Your task to perform on an android device: Add "asus rog" to the cart on target.com Image 0: 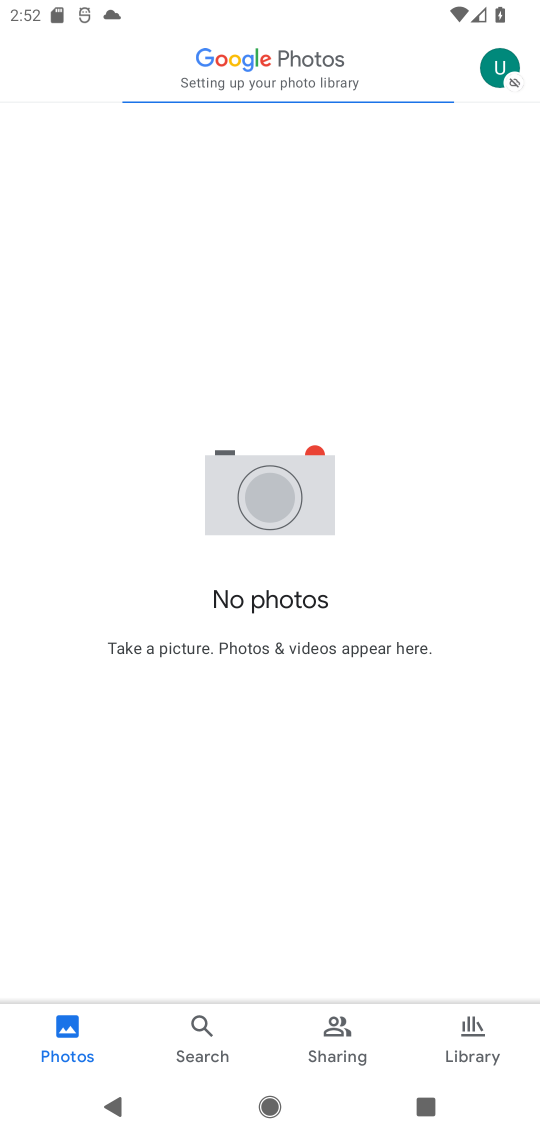
Step 0: press home button
Your task to perform on an android device: Add "asus rog" to the cart on target.com Image 1: 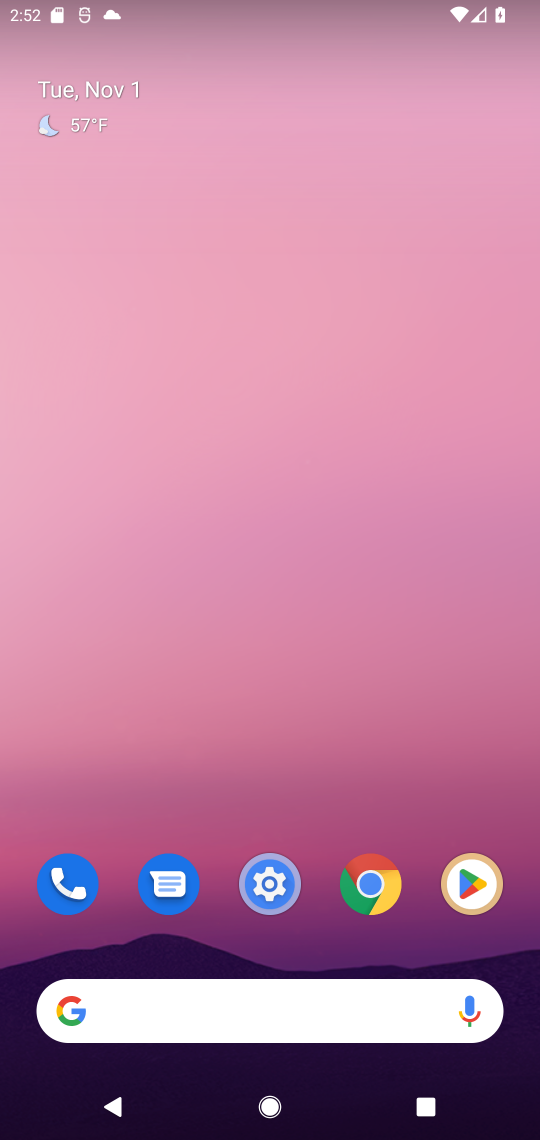
Step 1: click (115, 1008)
Your task to perform on an android device: Add "asus rog" to the cart on target.com Image 2: 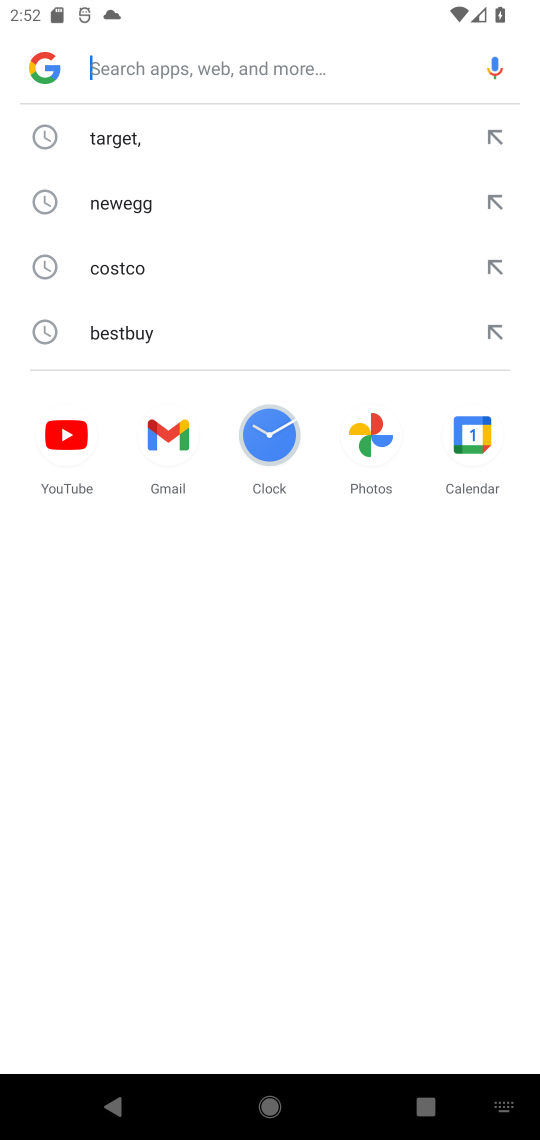
Step 2: type "target.com"
Your task to perform on an android device: Add "asus rog" to the cart on target.com Image 3: 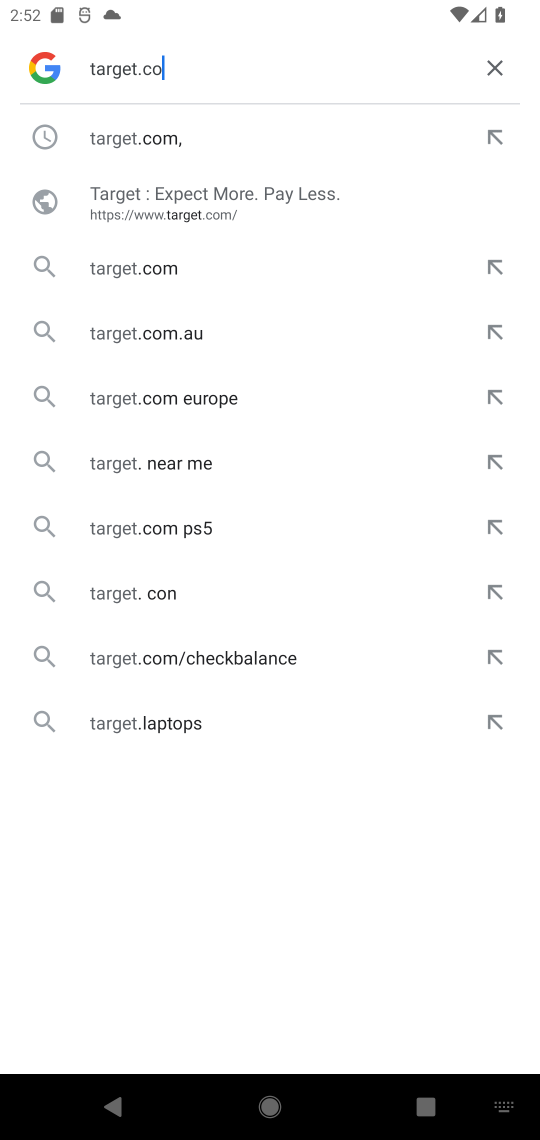
Step 3: press enter
Your task to perform on an android device: Add "asus rog" to the cart on target.com Image 4: 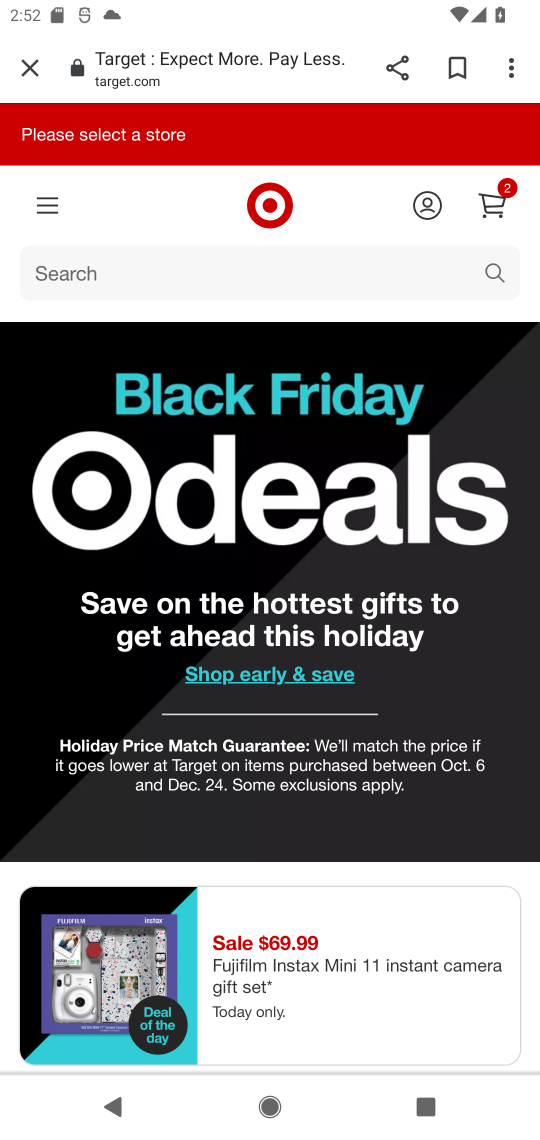
Step 4: click (53, 267)
Your task to perform on an android device: Add "asus rog" to the cart on target.com Image 5: 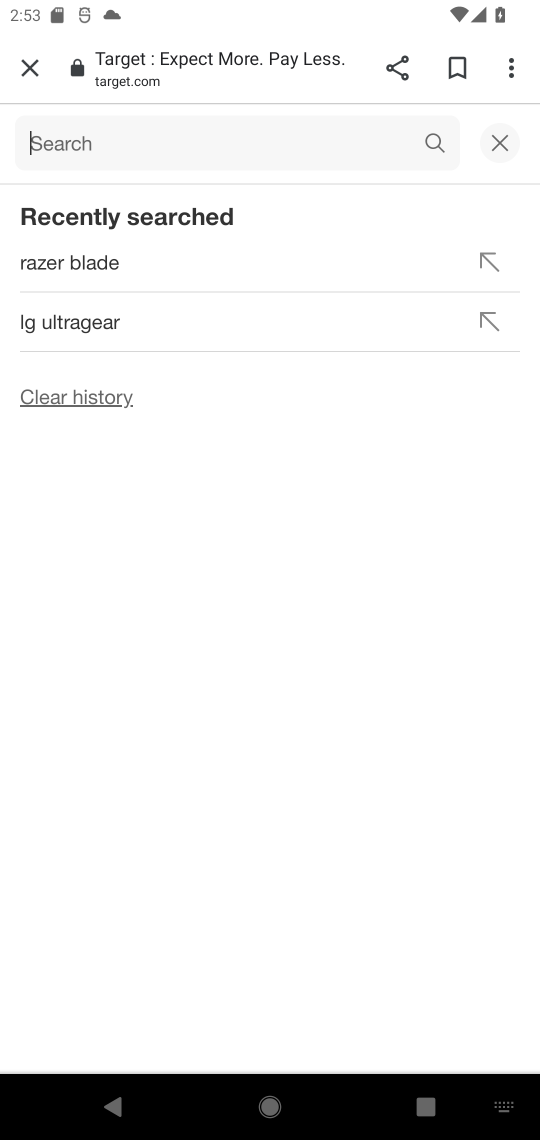
Step 5: type "asus rog"
Your task to perform on an android device: Add "asus rog" to the cart on target.com Image 6: 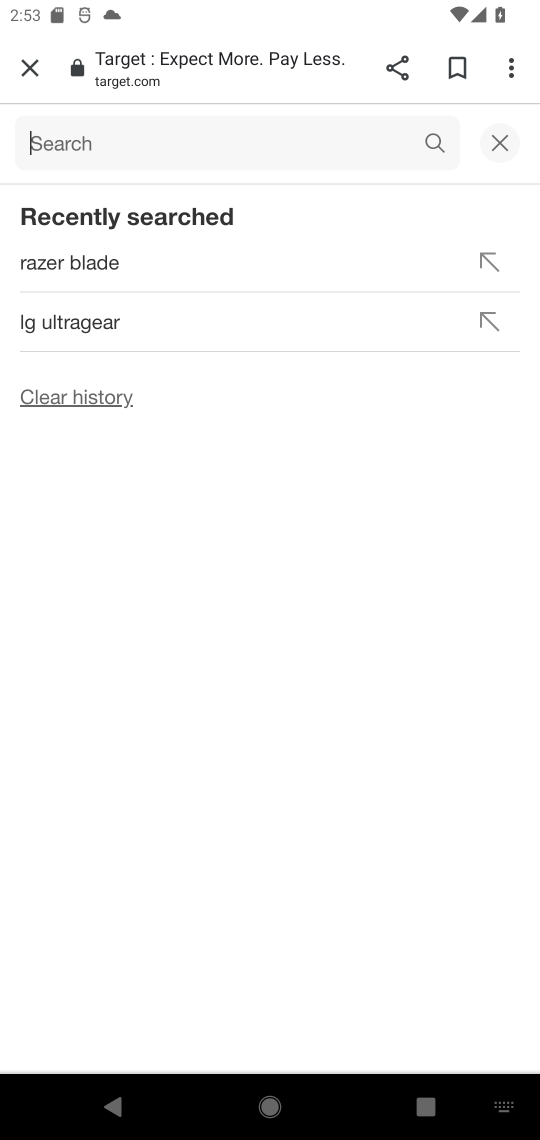
Step 6: press enter
Your task to perform on an android device: Add "asus rog" to the cart on target.com Image 7: 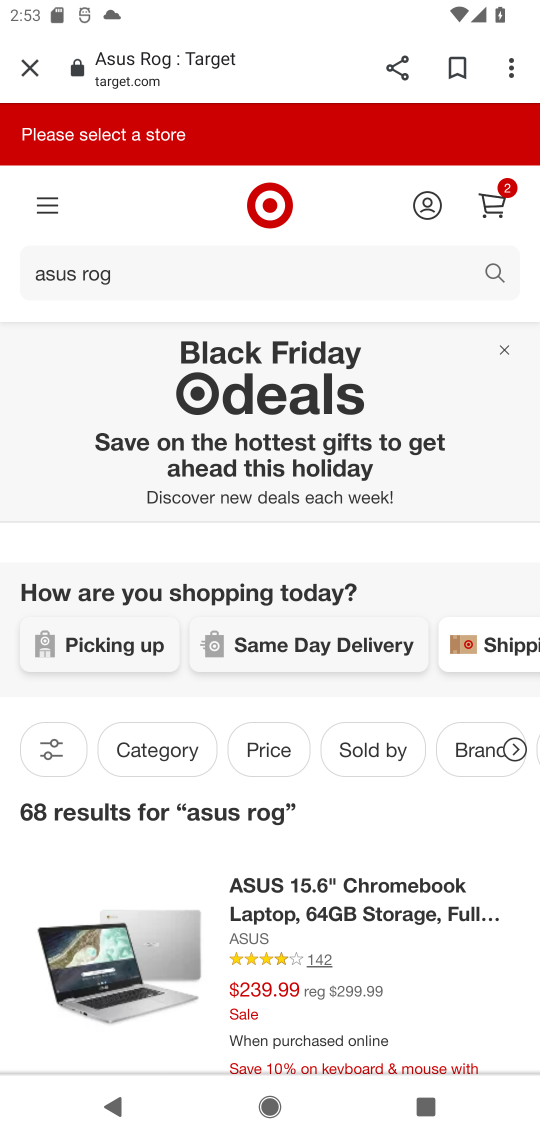
Step 7: drag from (338, 975) to (322, 531)
Your task to perform on an android device: Add "asus rog" to the cart on target.com Image 8: 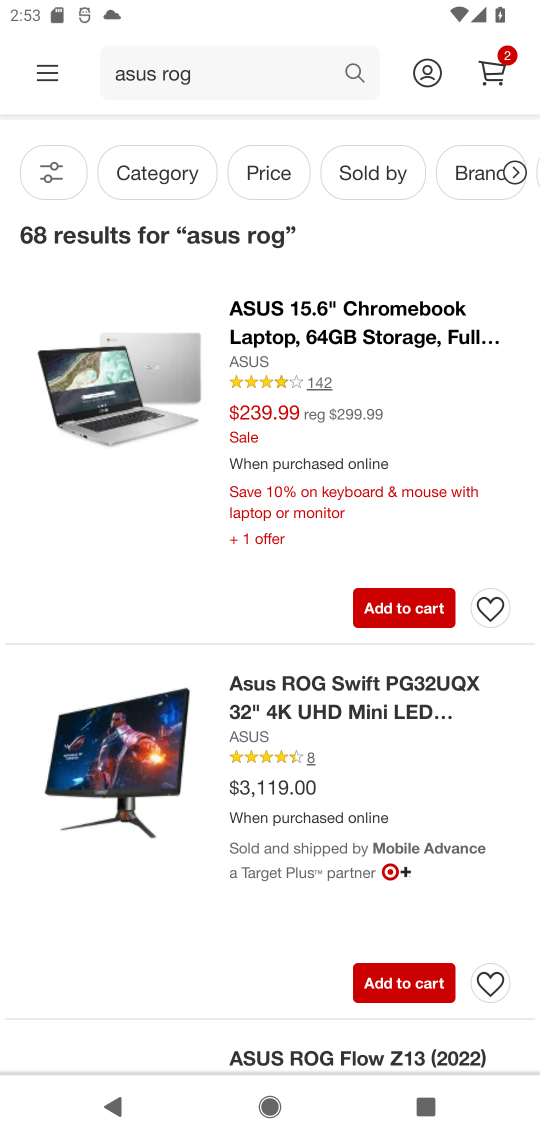
Step 8: click (400, 973)
Your task to perform on an android device: Add "asus rog" to the cart on target.com Image 9: 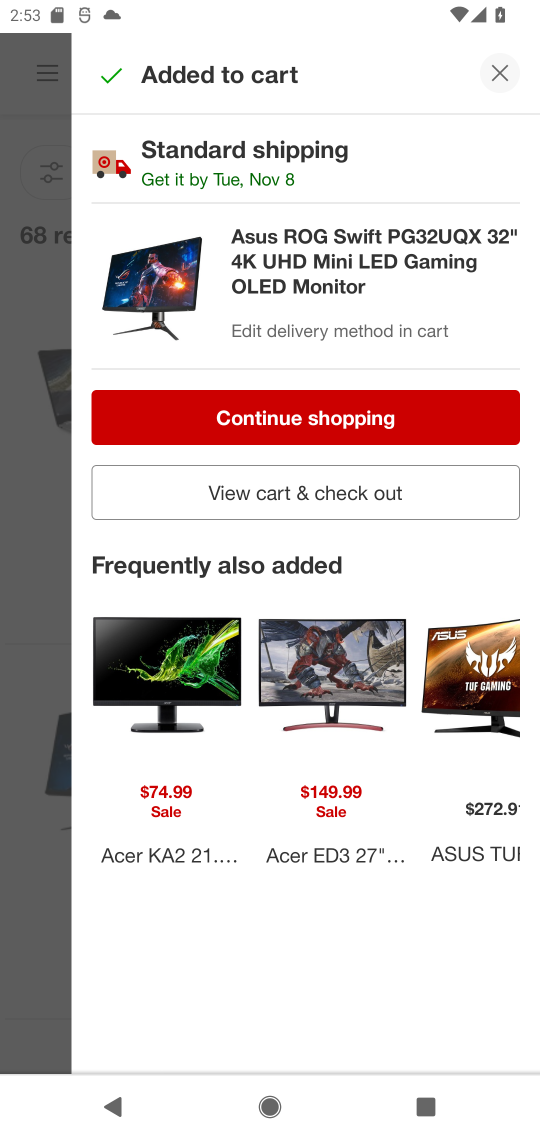
Step 9: task complete